Your task to perform on an android device: move a message to another label in the gmail app Image 0: 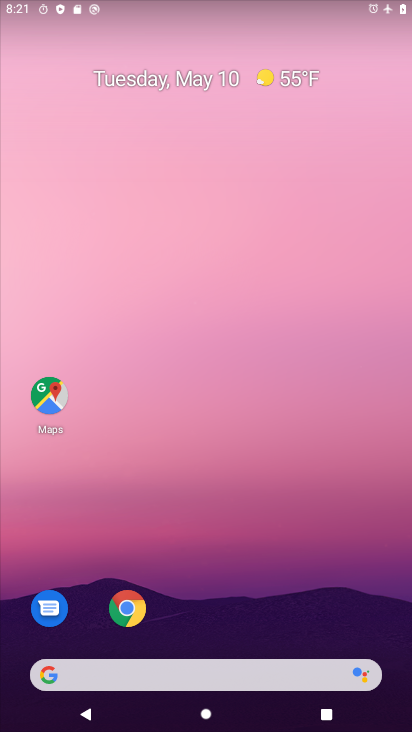
Step 0: drag from (228, 562) to (251, 57)
Your task to perform on an android device: move a message to another label in the gmail app Image 1: 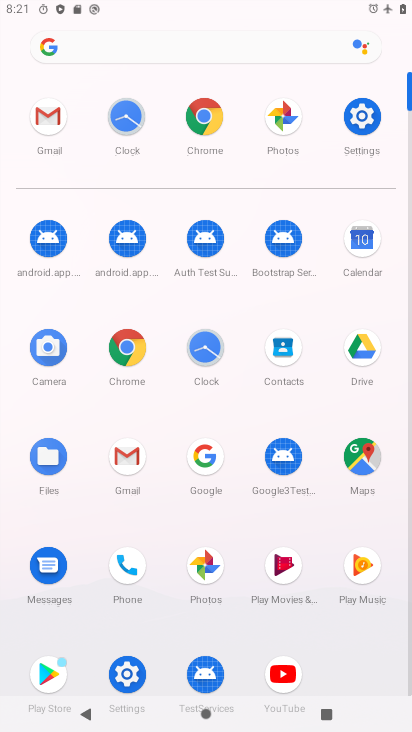
Step 1: click (126, 454)
Your task to perform on an android device: move a message to another label in the gmail app Image 2: 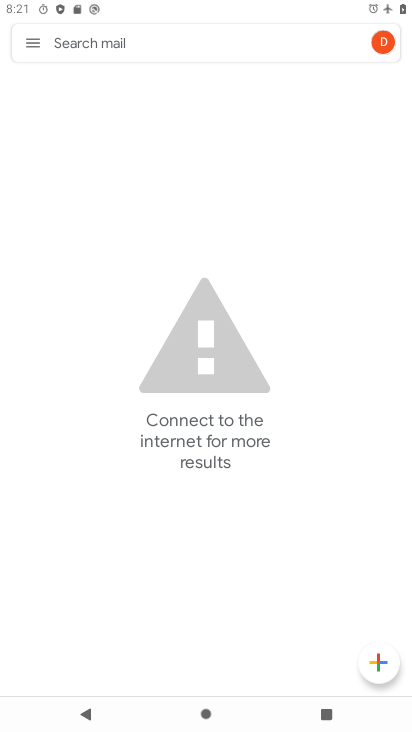
Step 2: click (30, 43)
Your task to perform on an android device: move a message to another label in the gmail app Image 3: 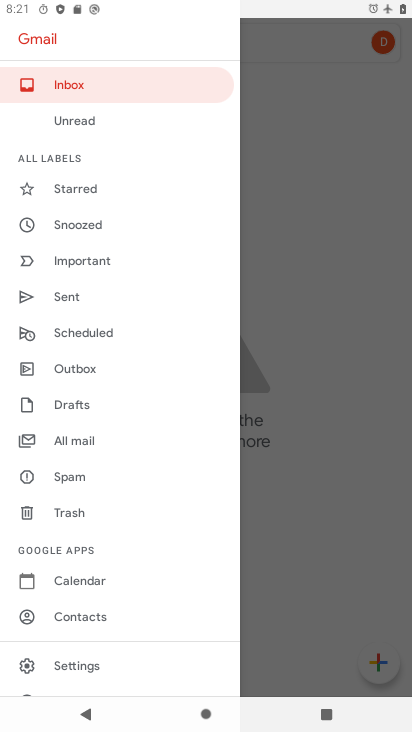
Step 3: click (69, 443)
Your task to perform on an android device: move a message to another label in the gmail app Image 4: 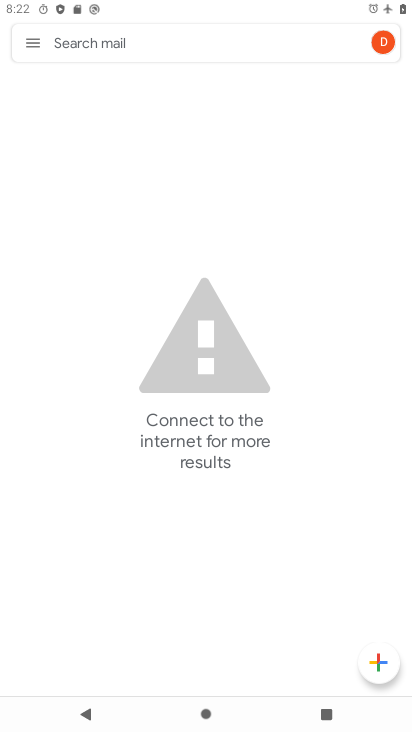
Step 4: task complete